Your task to perform on an android device: Show me recent news Image 0: 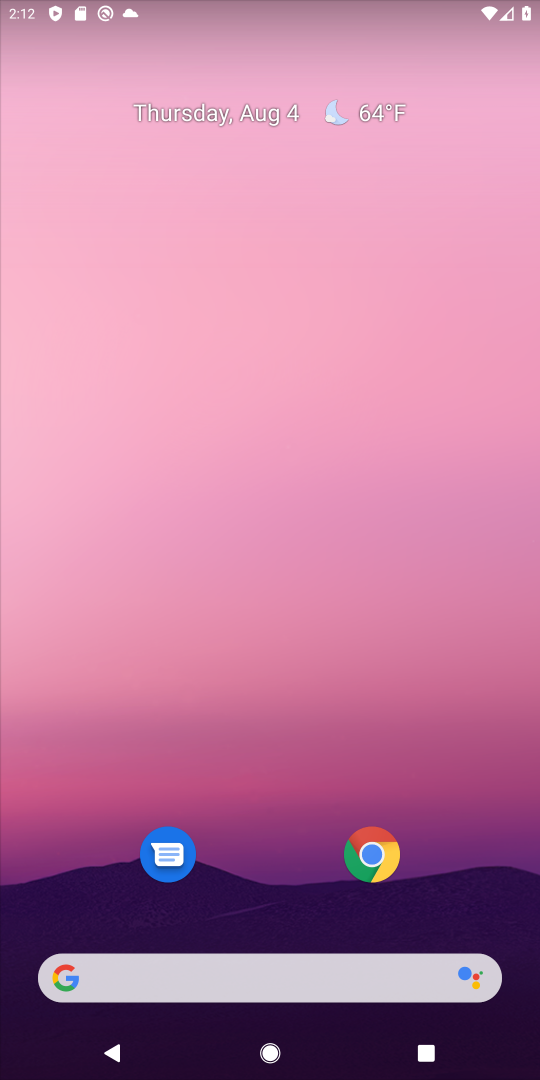
Step 0: click (368, 990)
Your task to perform on an android device: Show me recent news Image 1: 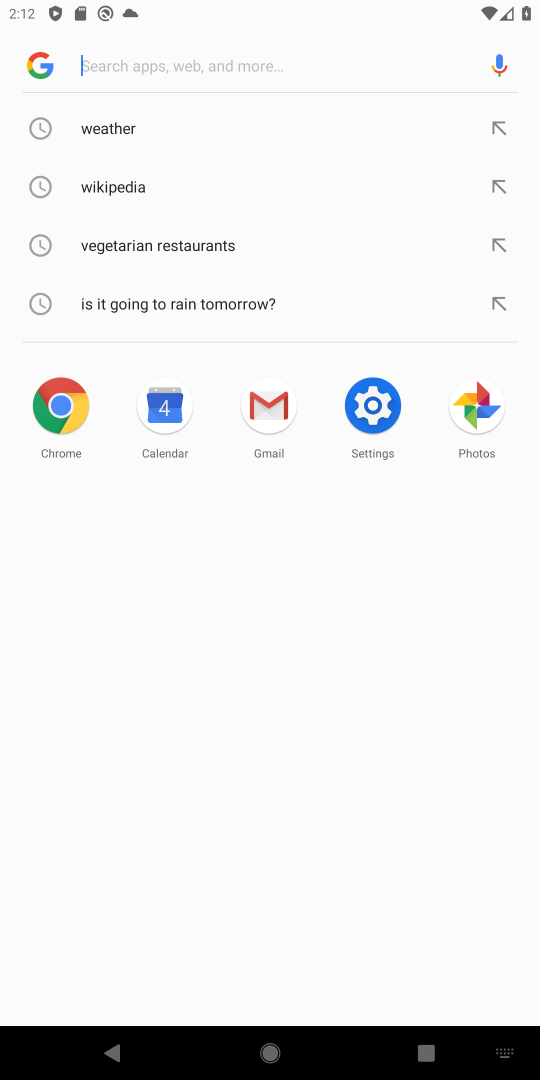
Step 1: type " recent news"
Your task to perform on an android device: Show me recent news Image 2: 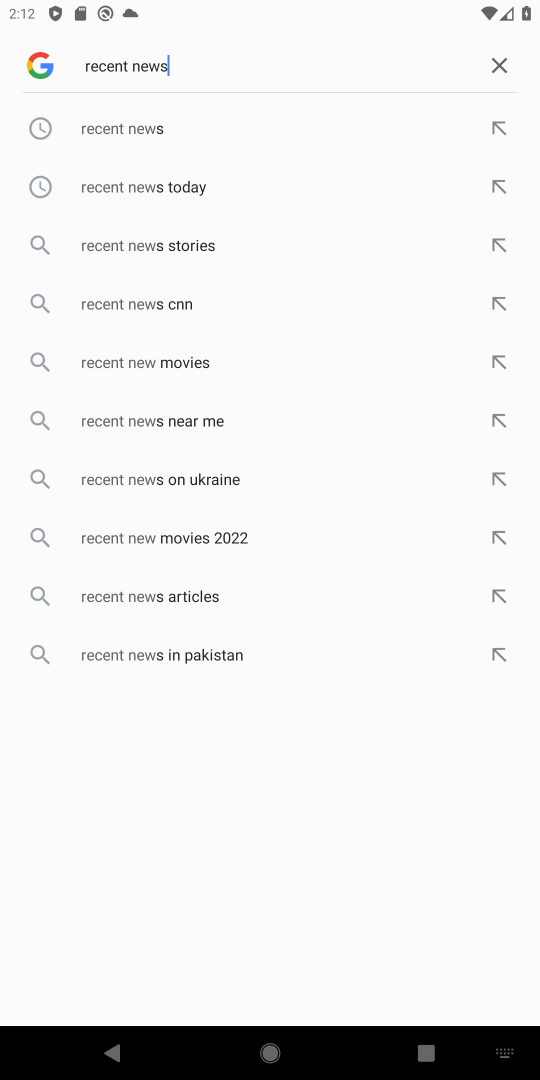
Step 2: press enter
Your task to perform on an android device: Show me recent news Image 3: 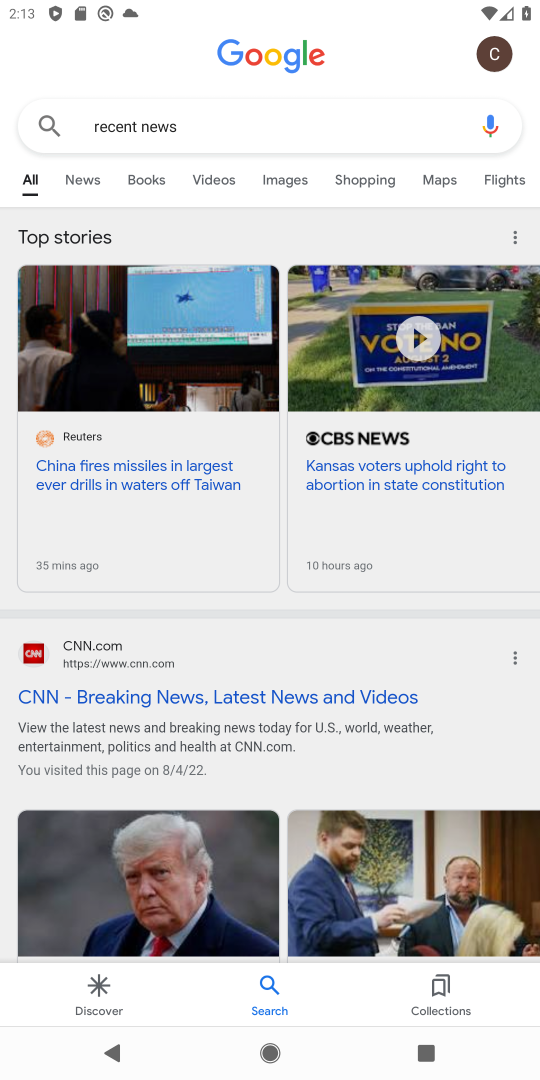
Step 3: task complete